Your task to perform on an android device: delete a single message in the gmail app Image 0: 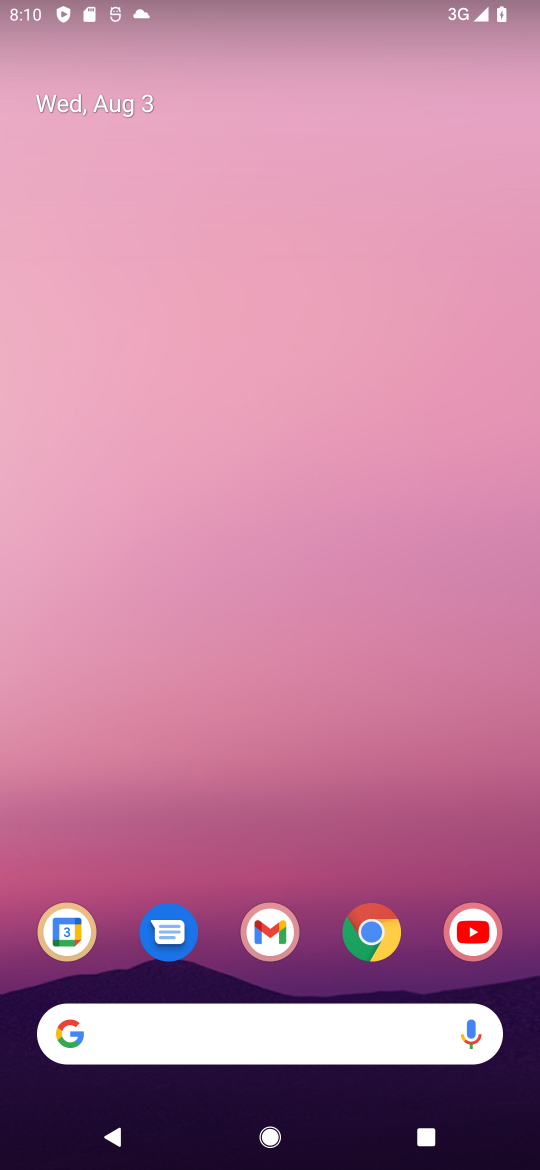
Step 0: click (282, 929)
Your task to perform on an android device: delete a single message in the gmail app Image 1: 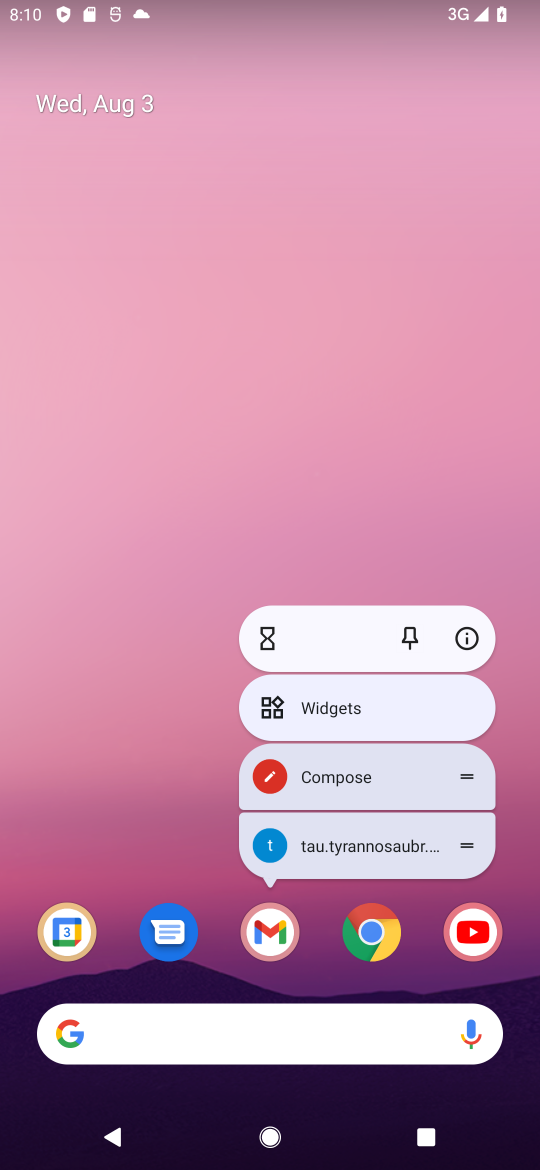
Step 1: click (282, 929)
Your task to perform on an android device: delete a single message in the gmail app Image 2: 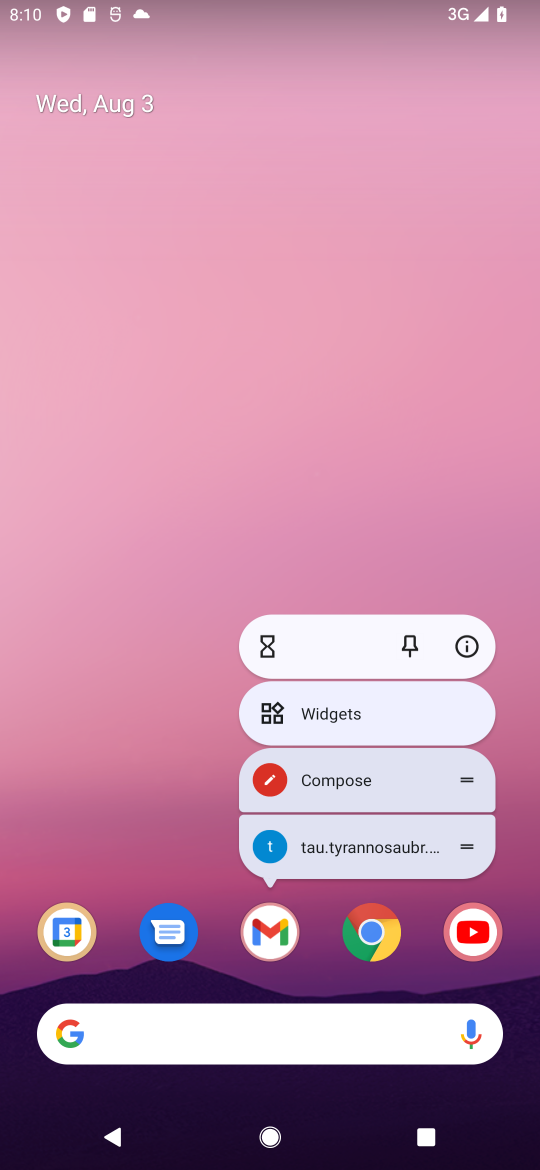
Step 2: click (260, 939)
Your task to perform on an android device: delete a single message in the gmail app Image 3: 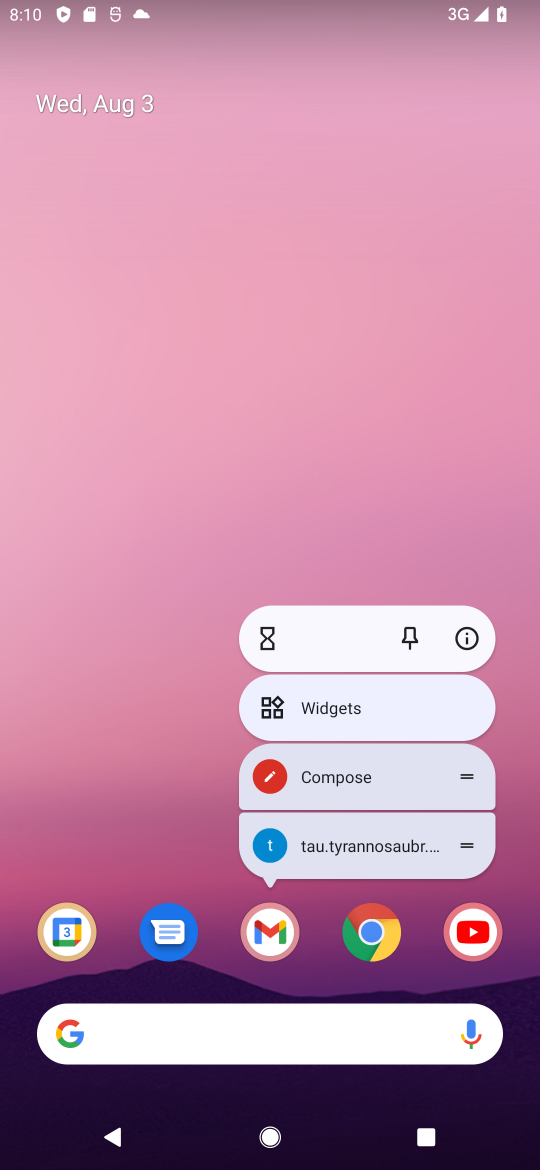
Step 3: click (258, 931)
Your task to perform on an android device: delete a single message in the gmail app Image 4: 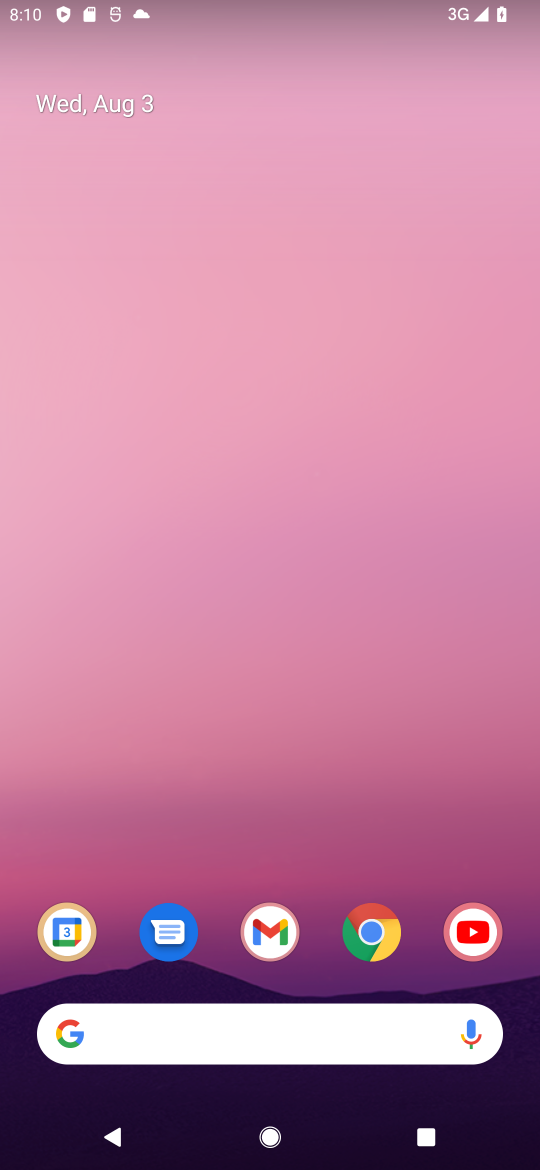
Step 4: click (292, 959)
Your task to perform on an android device: delete a single message in the gmail app Image 5: 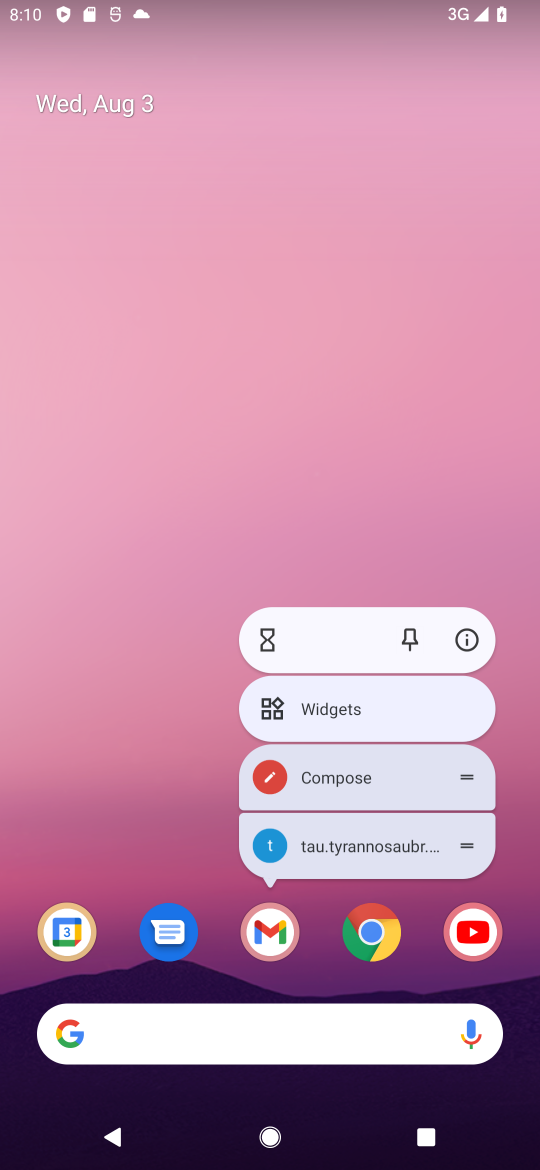
Step 5: click (285, 957)
Your task to perform on an android device: delete a single message in the gmail app Image 6: 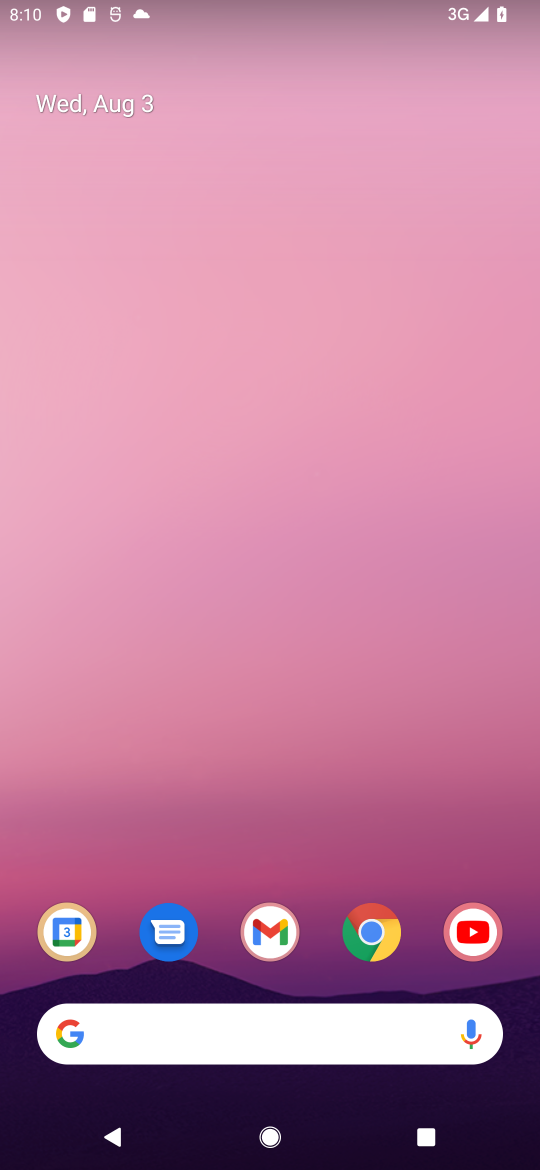
Step 6: click (285, 945)
Your task to perform on an android device: delete a single message in the gmail app Image 7: 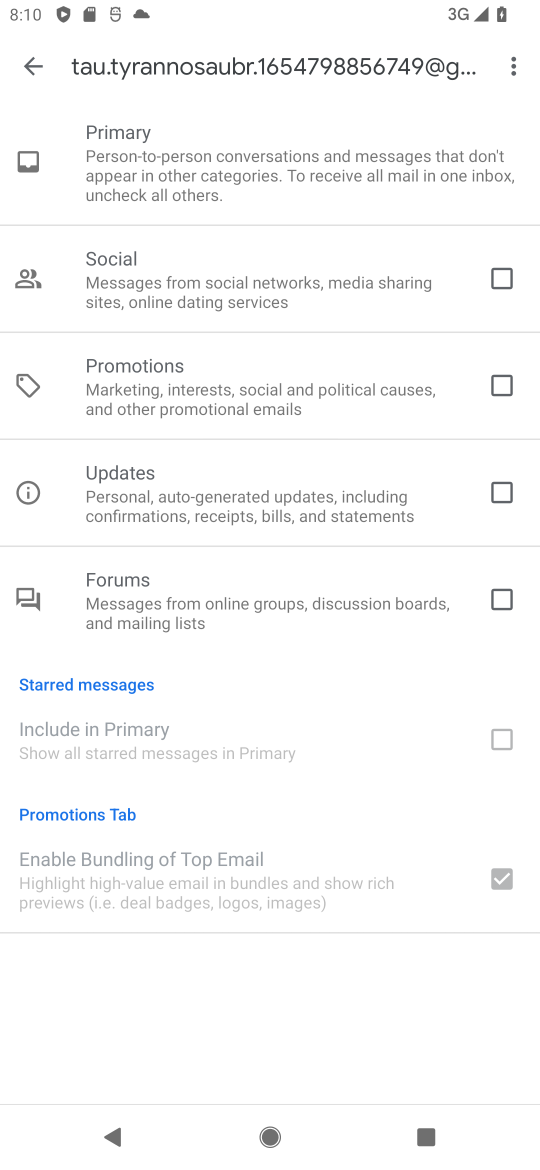
Step 7: click (285, 945)
Your task to perform on an android device: delete a single message in the gmail app Image 8: 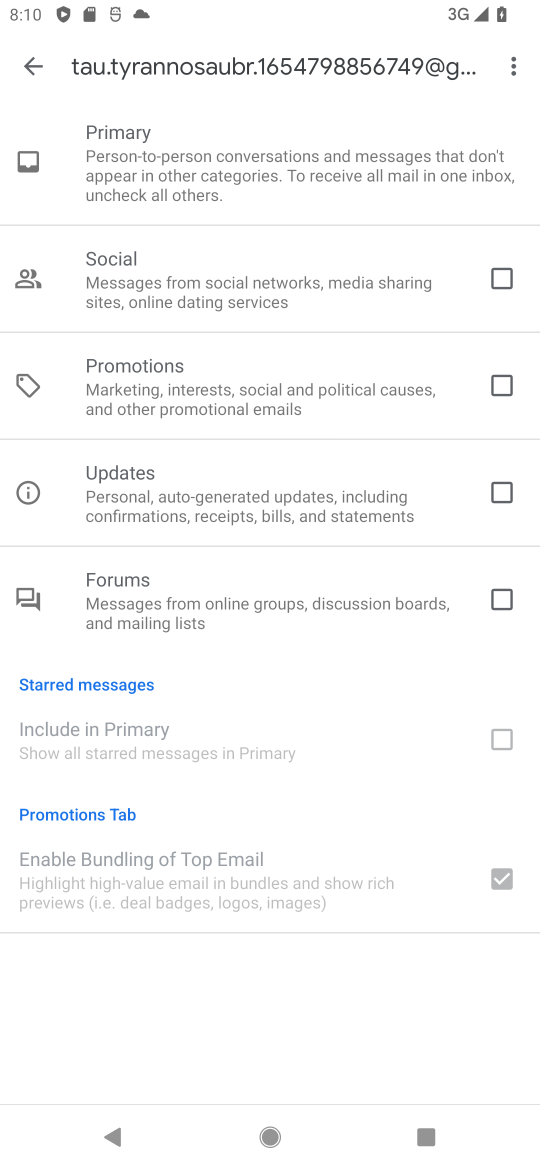
Step 8: click (36, 71)
Your task to perform on an android device: delete a single message in the gmail app Image 9: 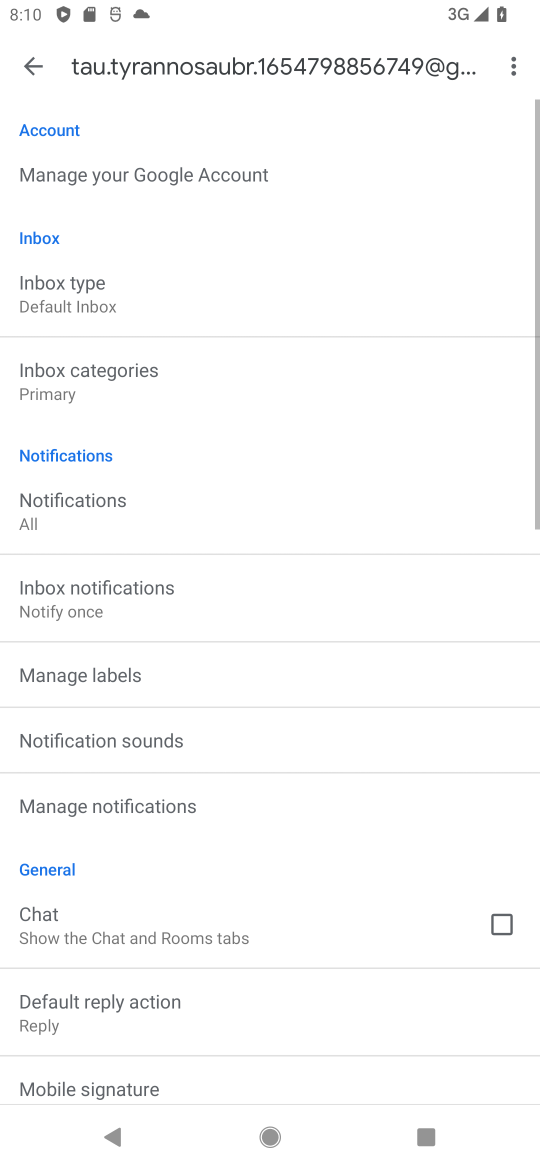
Step 9: click (36, 71)
Your task to perform on an android device: delete a single message in the gmail app Image 10: 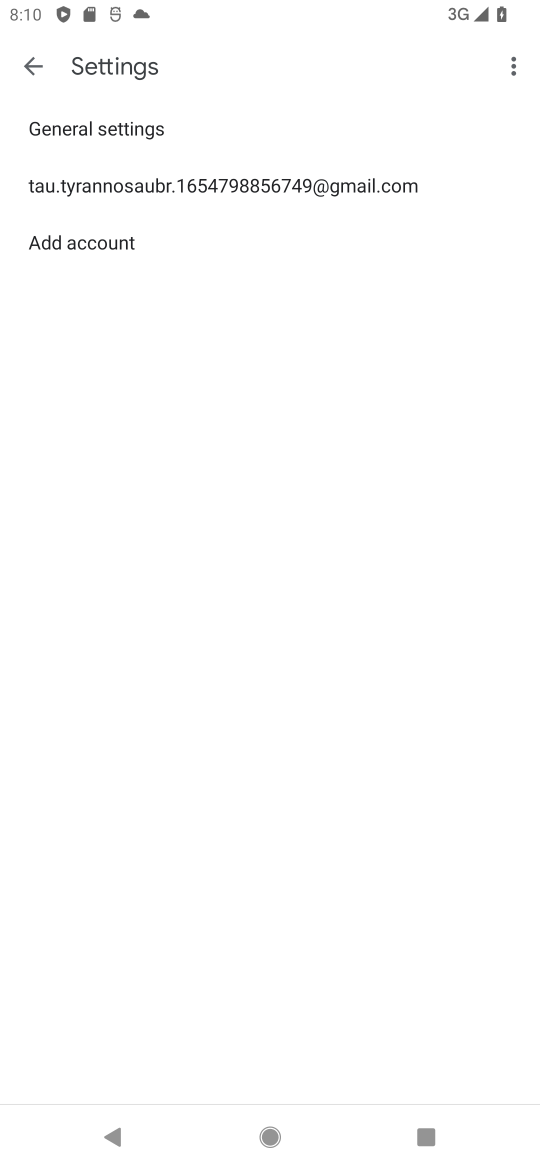
Step 10: click (36, 71)
Your task to perform on an android device: delete a single message in the gmail app Image 11: 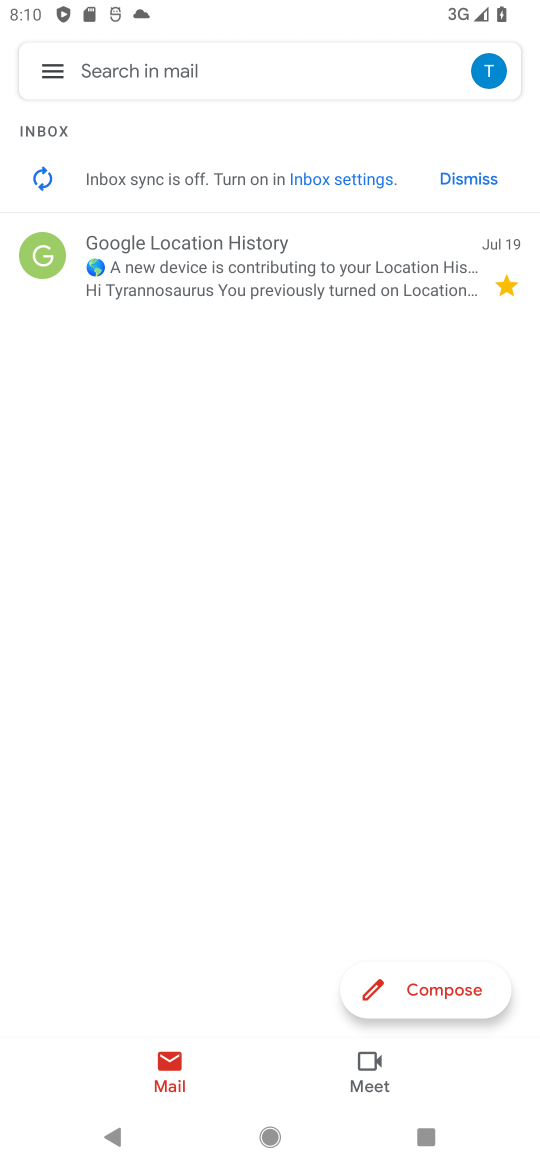
Step 11: click (262, 276)
Your task to perform on an android device: delete a single message in the gmail app Image 12: 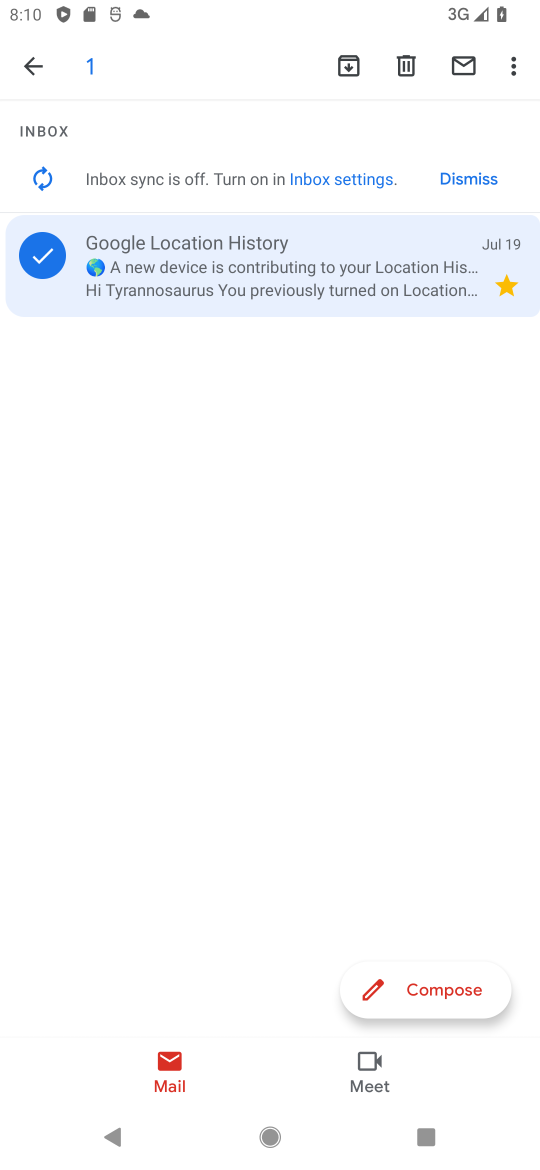
Step 12: click (419, 54)
Your task to perform on an android device: delete a single message in the gmail app Image 13: 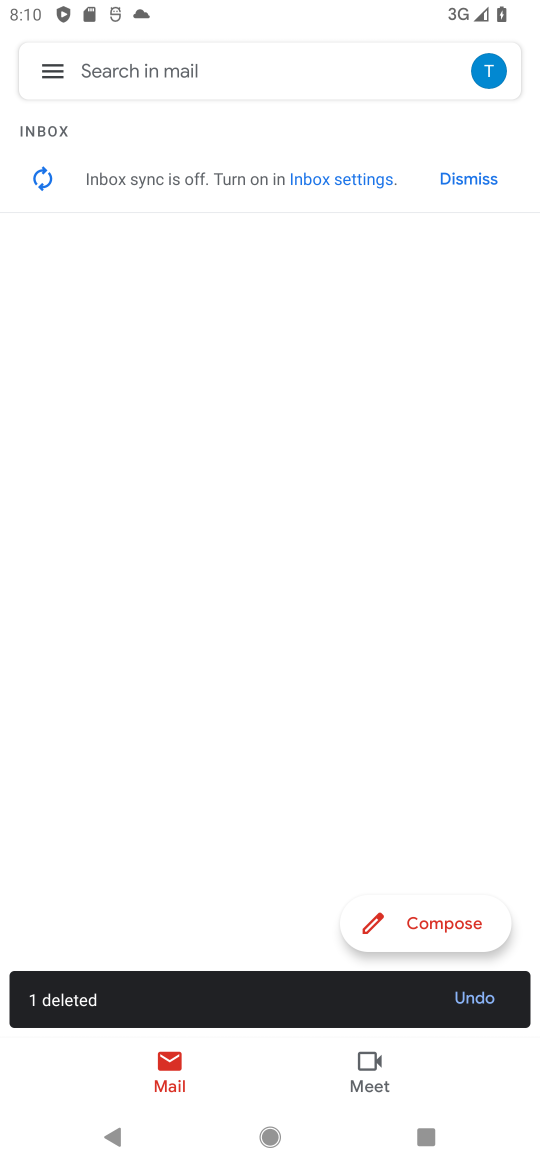
Step 13: task complete